Your task to perform on an android device: clear history in the chrome app Image 0: 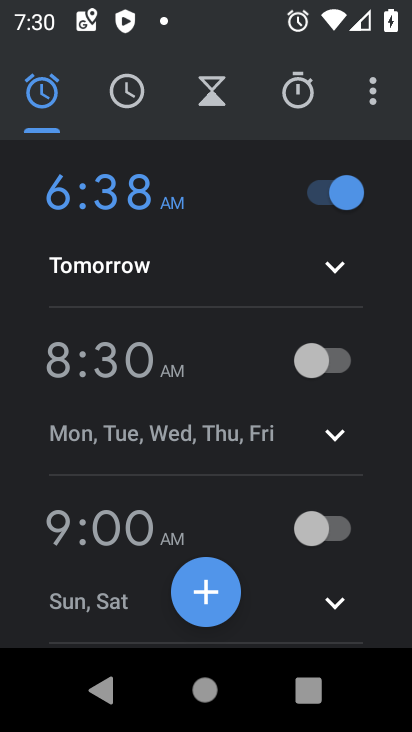
Step 0: press home button
Your task to perform on an android device: clear history in the chrome app Image 1: 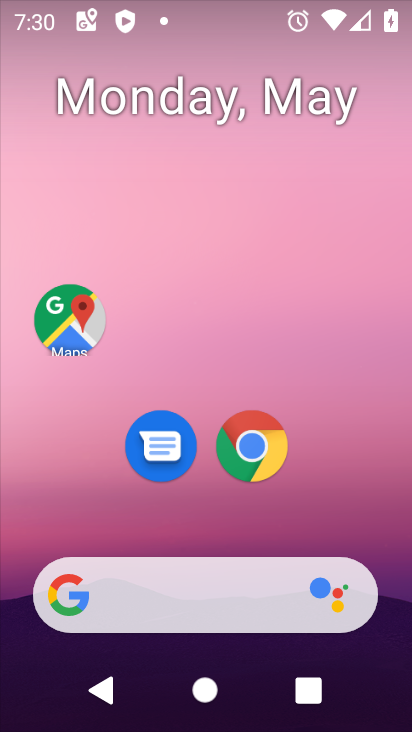
Step 1: click (246, 440)
Your task to perform on an android device: clear history in the chrome app Image 2: 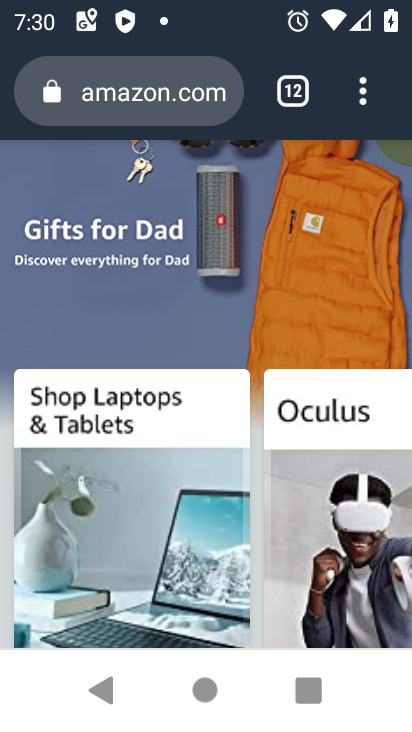
Step 2: click (359, 93)
Your task to perform on an android device: clear history in the chrome app Image 3: 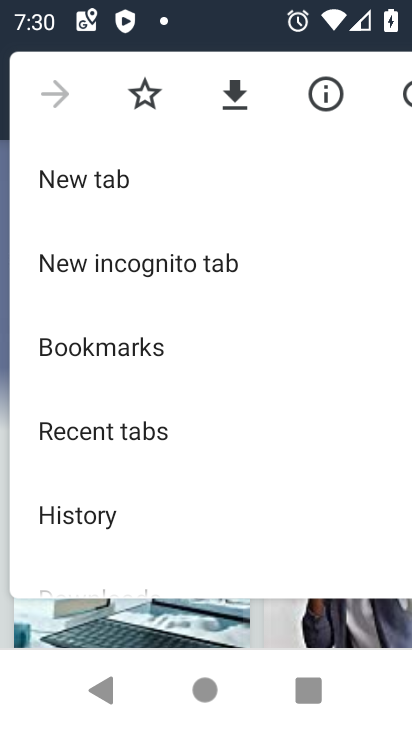
Step 3: click (93, 510)
Your task to perform on an android device: clear history in the chrome app Image 4: 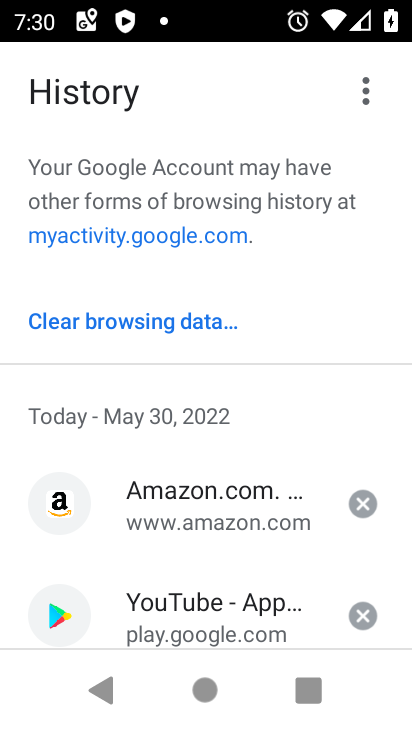
Step 4: click (87, 324)
Your task to perform on an android device: clear history in the chrome app Image 5: 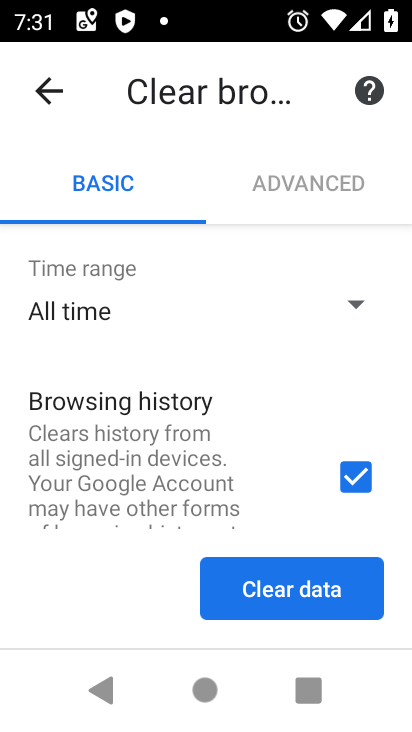
Step 5: click (283, 592)
Your task to perform on an android device: clear history in the chrome app Image 6: 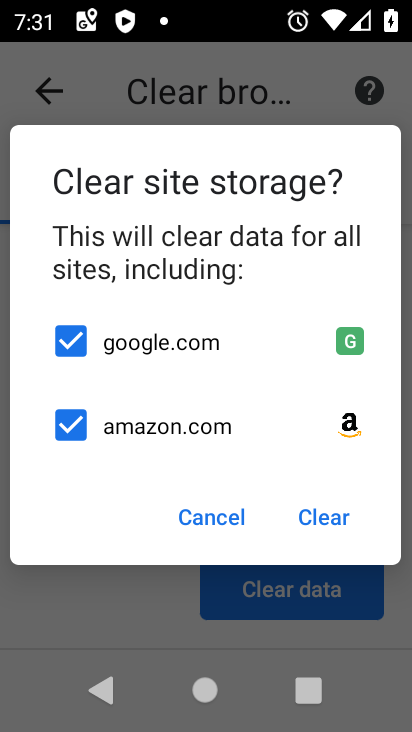
Step 6: click (327, 517)
Your task to perform on an android device: clear history in the chrome app Image 7: 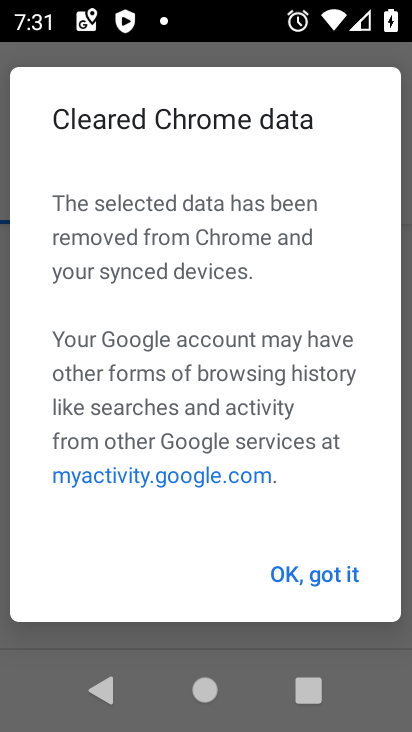
Step 7: click (326, 581)
Your task to perform on an android device: clear history in the chrome app Image 8: 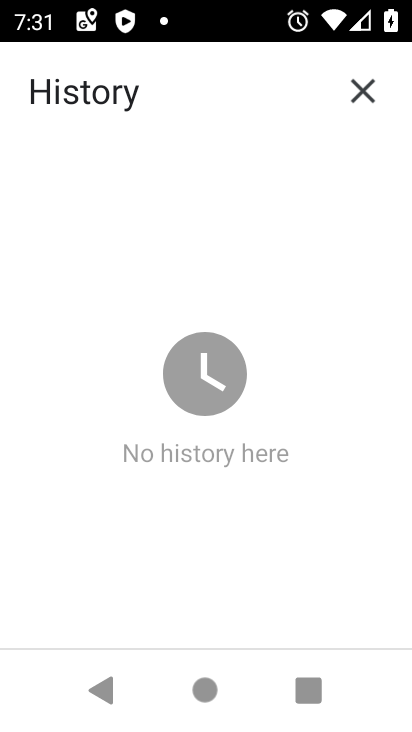
Step 8: task complete